Your task to perform on an android device: star an email in the gmail app Image 0: 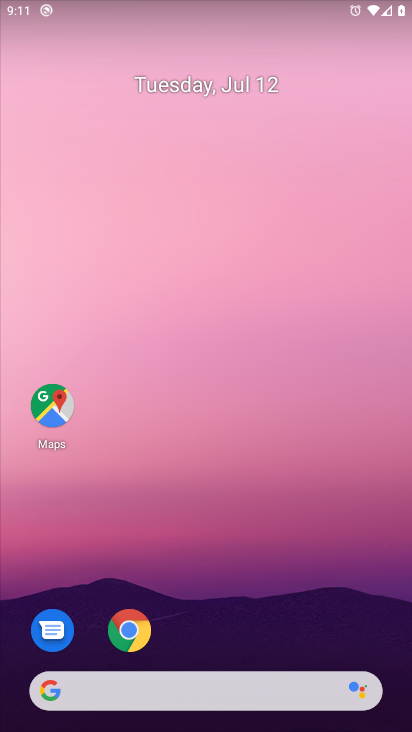
Step 0: press home button
Your task to perform on an android device: star an email in the gmail app Image 1: 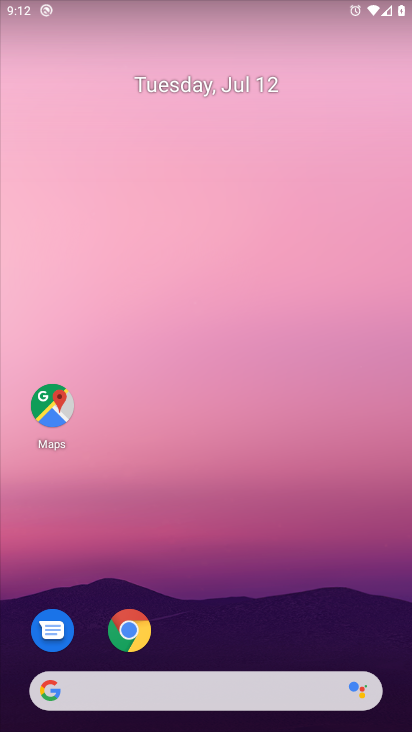
Step 1: drag from (226, 569) to (251, 108)
Your task to perform on an android device: star an email in the gmail app Image 2: 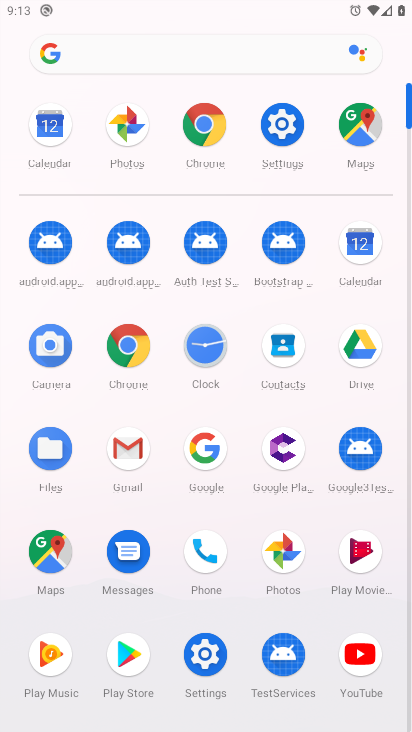
Step 2: click (124, 458)
Your task to perform on an android device: star an email in the gmail app Image 3: 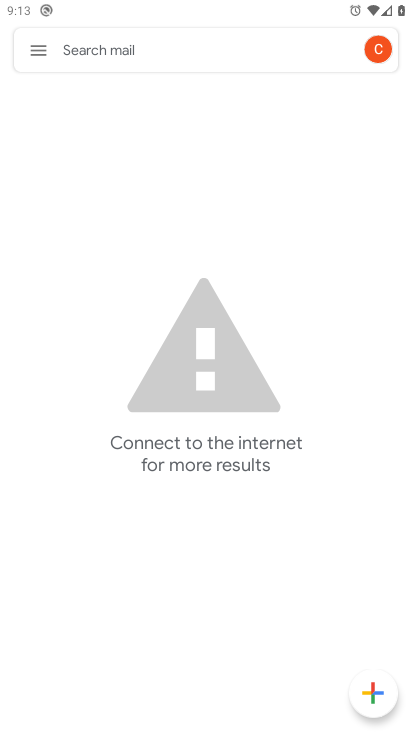
Step 3: click (41, 57)
Your task to perform on an android device: star an email in the gmail app Image 4: 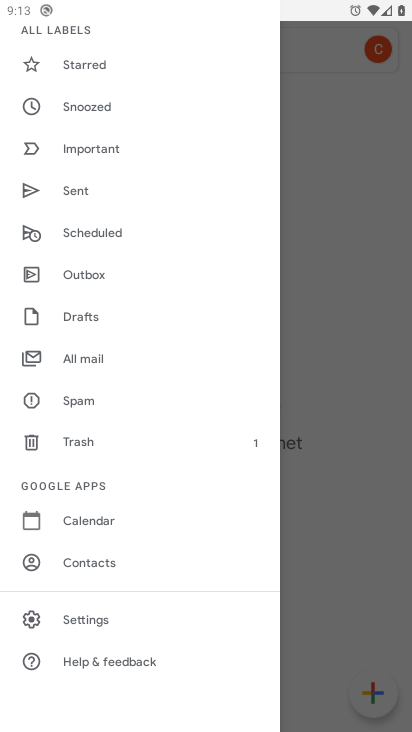
Step 4: click (92, 351)
Your task to perform on an android device: star an email in the gmail app Image 5: 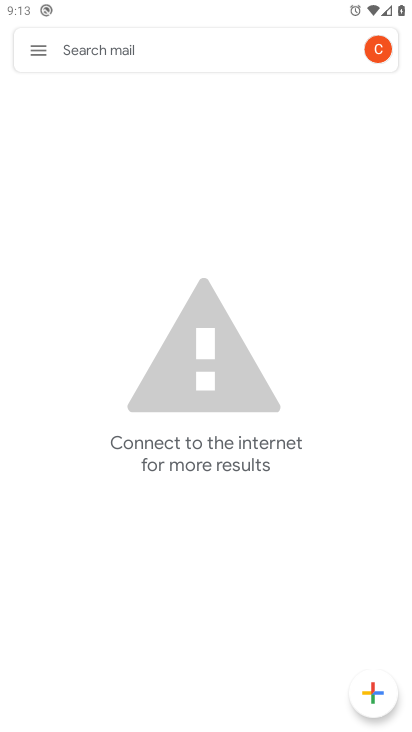
Step 5: task complete